Your task to perform on an android device: Check the settings for the Pandora app Image 0: 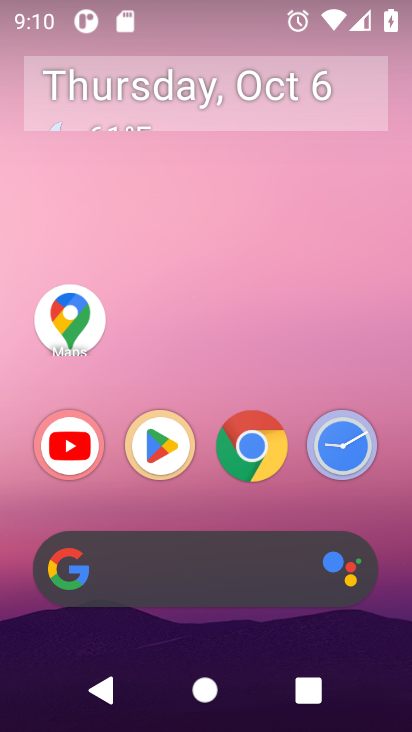
Step 0: task impossible